Your task to perform on an android device: Open calendar and show me the second week of next month Image 0: 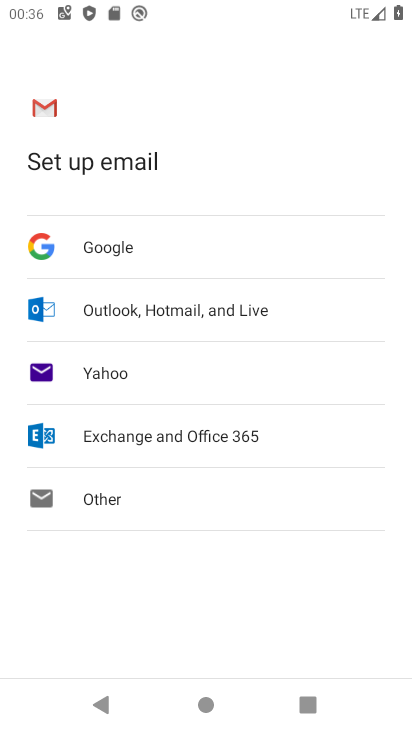
Step 0: press home button
Your task to perform on an android device: Open calendar and show me the second week of next month Image 1: 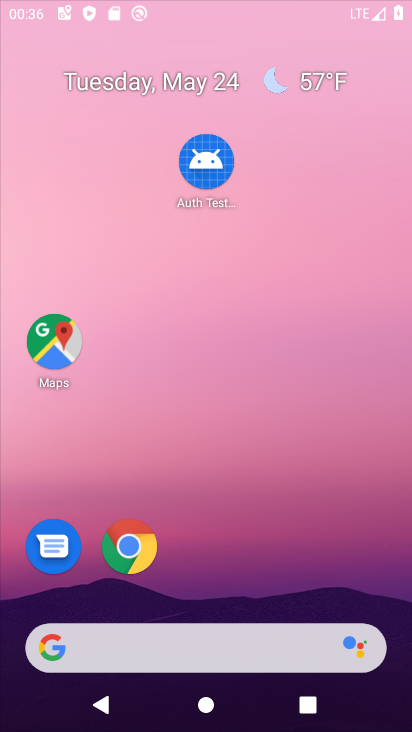
Step 1: drag from (197, 622) to (200, 14)
Your task to perform on an android device: Open calendar and show me the second week of next month Image 2: 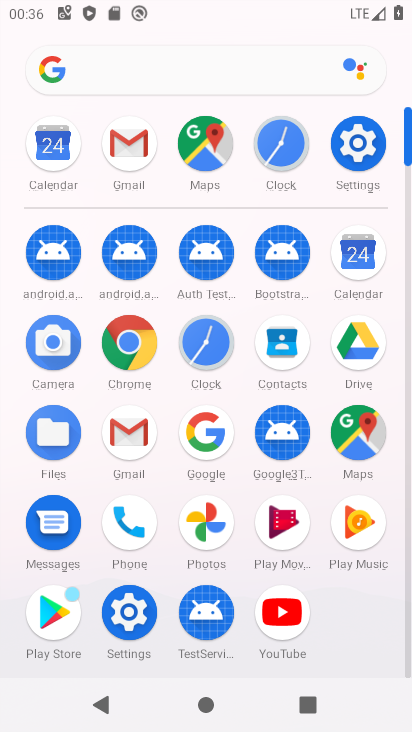
Step 2: click (348, 250)
Your task to perform on an android device: Open calendar and show me the second week of next month Image 3: 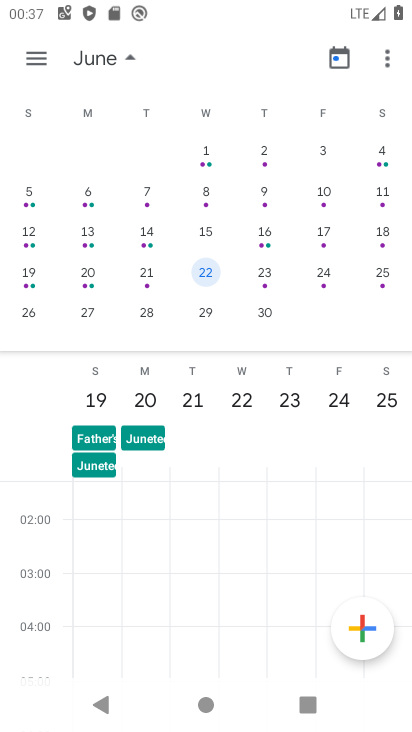
Step 3: click (270, 189)
Your task to perform on an android device: Open calendar and show me the second week of next month Image 4: 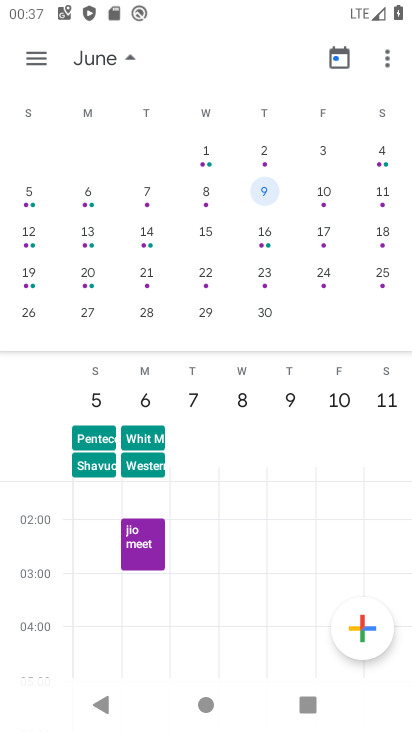
Step 4: task complete